Your task to perform on an android device: Go to Google Image 0: 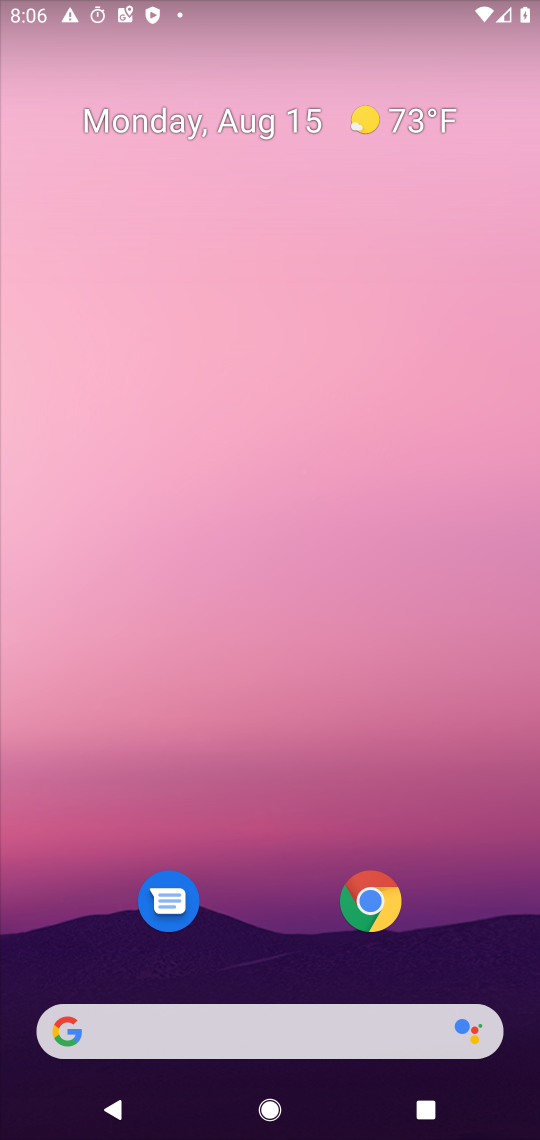
Step 0: click (68, 1039)
Your task to perform on an android device: Go to Google Image 1: 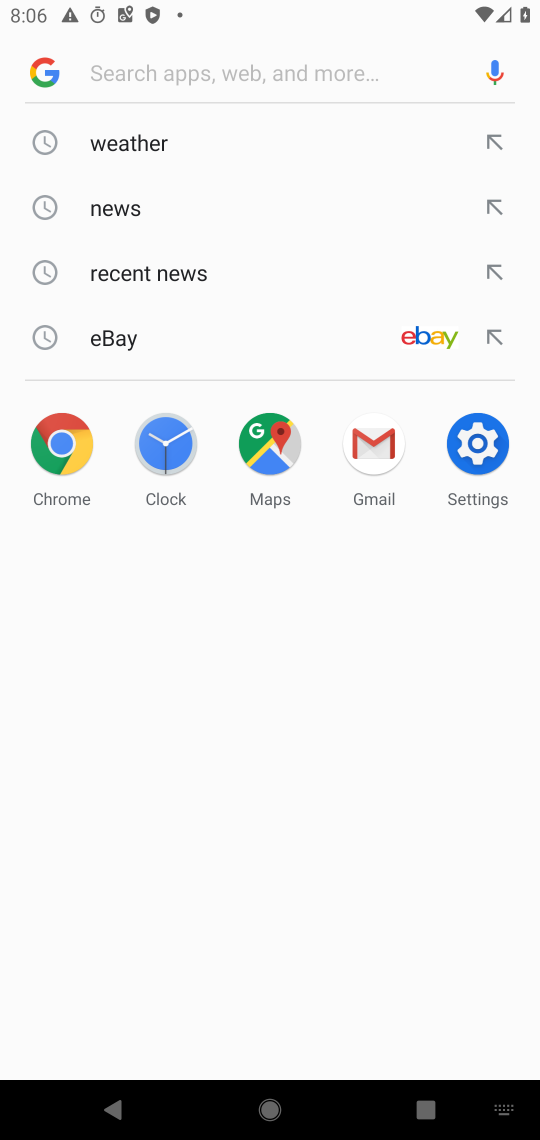
Step 1: click (40, 63)
Your task to perform on an android device: Go to Google Image 2: 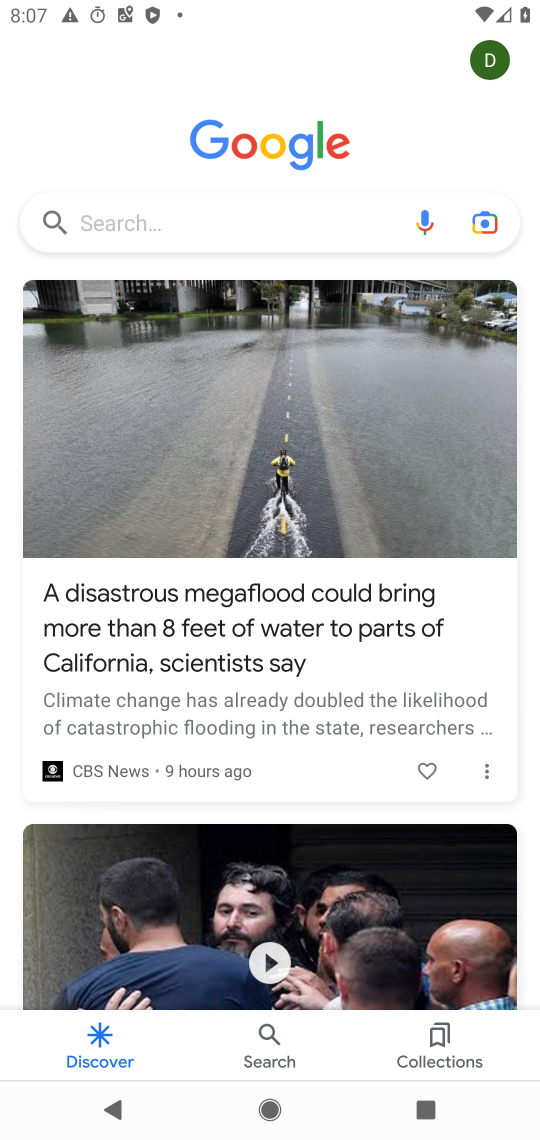
Step 2: task complete